Your task to perform on an android device: Set the phone to "Do not disturb". Image 0: 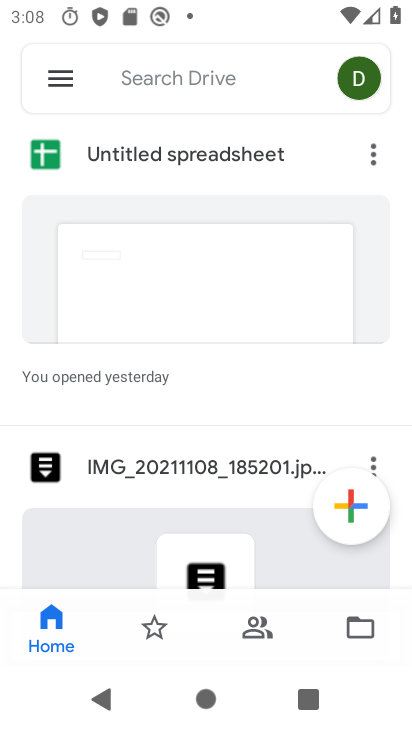
Step 0: press home button
Your task to perform on an android device: Set the phone to "Do not disturb". Image 1: 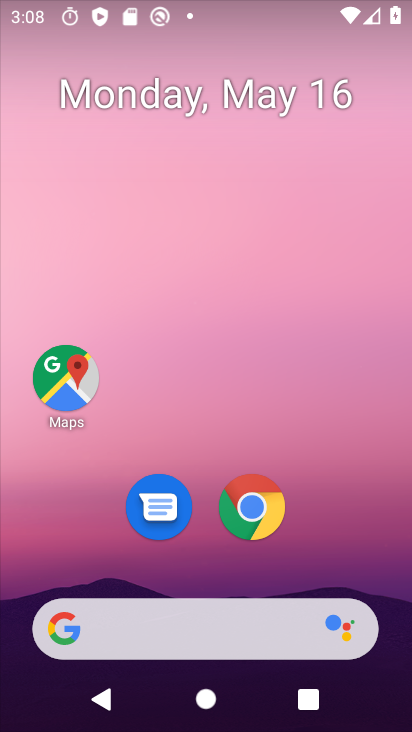
Step 1: drag from (344, 507) to (7, 588)
Your task to perform on an android device: Set the phone to "Do not disturb". Image 2: 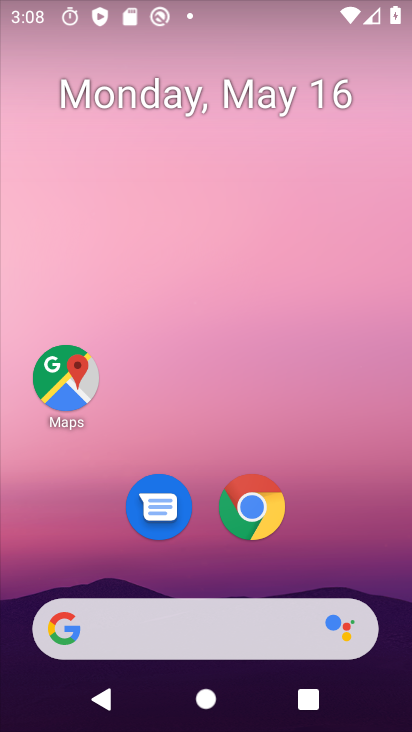
Step 2: drag from (379, 516) to (290, 2)
Your task to perform on an android device: Set the phone to "Do not disturb". Image 3: 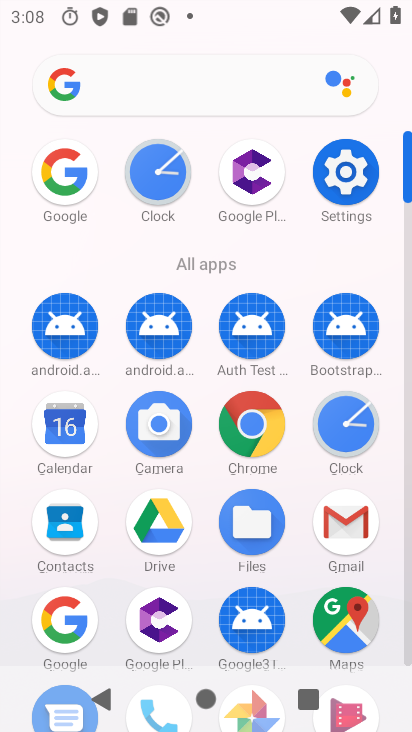
Step 3: click (343, 230)
Your task to perform on an android device: Set the phone to "Do not disturb". Image 4: 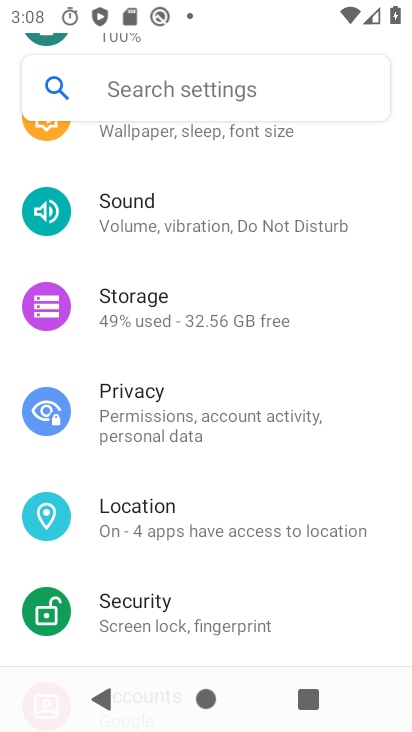
Step 4: click (242, 219)
Your task to perform on an android device: Set the phone to "Do not disturb". Image 5: 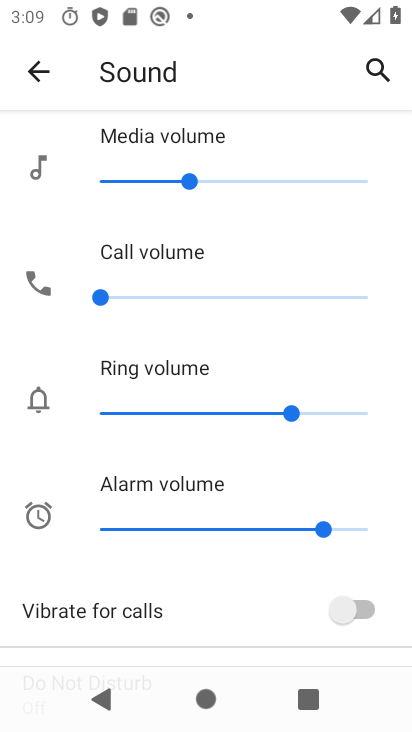
Step 5: drag from (263, 570) to (275, 122)
Your task to perform on an android device: Set the phone to "Do not disturb". Image 6: 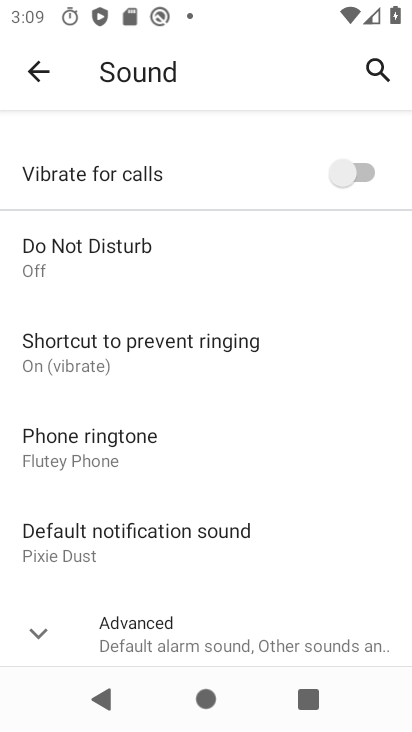
Step 6: click (87, 269)
Your task to perform on an android device: Set the phone to "Do not disturb". Image 7: 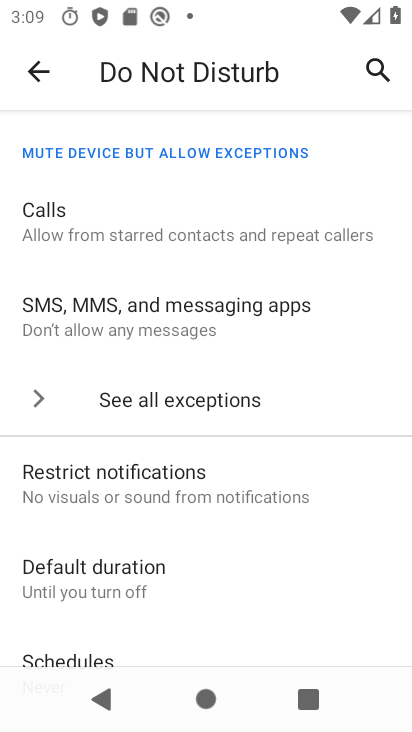
Step 7: drag from (214, 618) to (287, 194)
Your task to perform on an android device: Set the phone to "Do not disturb". Image 8: 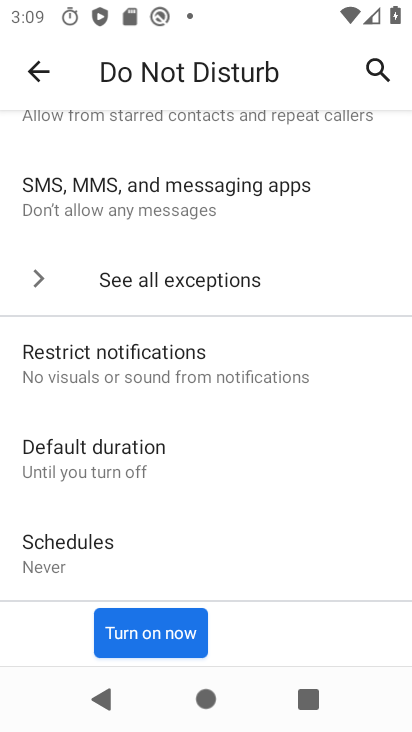
Step 8: click (160, 660)
Your task to perform on an android device: Set the phone to "Do not disturb". Image 9: 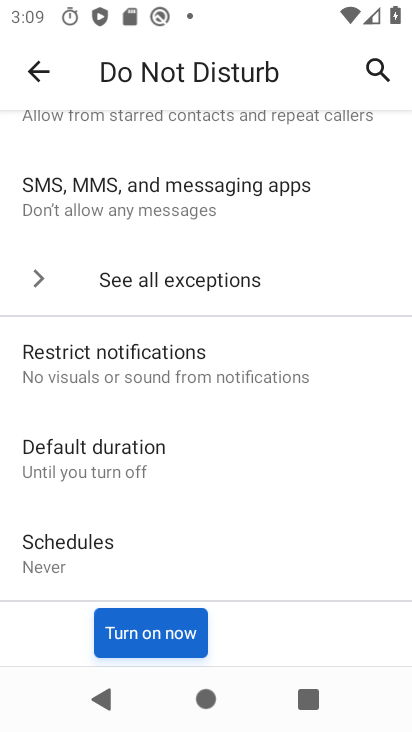
Step 9: click (158, 643)
Your task to perform on an android device: Set the phone to "Do not disturb". Image 10: 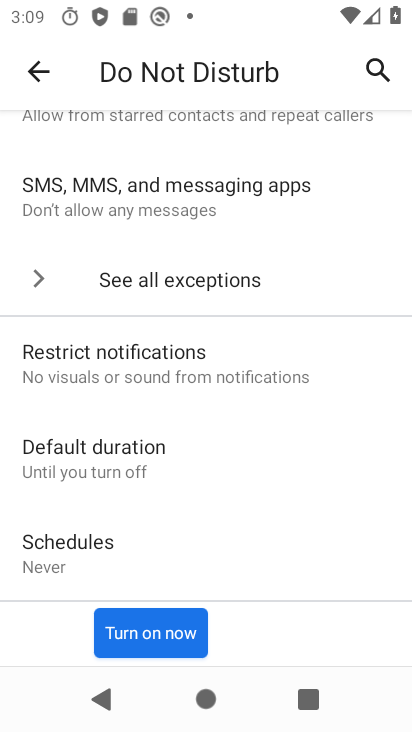
Step 10: click (161, 621)
Your task to perform on an android device: Set the phone to "Do not disturb". Image 11: 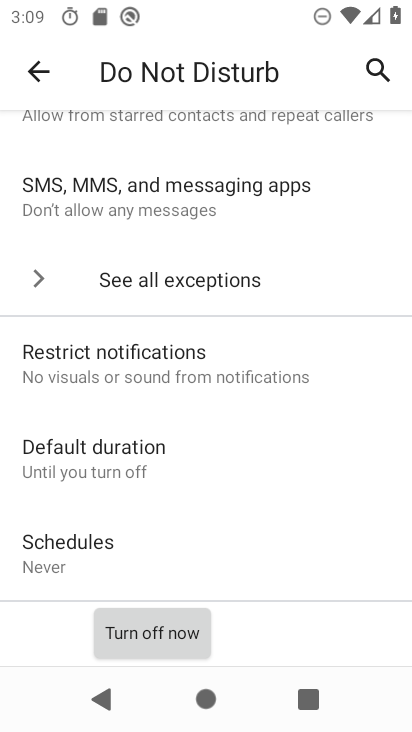
Step 11: task complete